Your task to perform on an android device: empty trash in the gmail app Image 0: 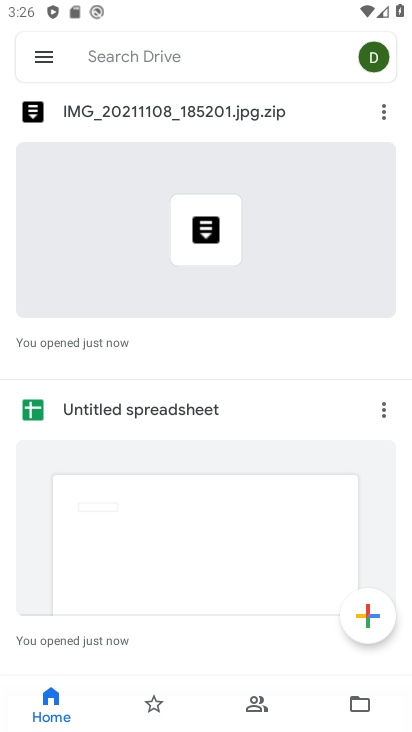
Step 0: press home button
Your task to perform on an android device: empty trash in the gmail app Image 1: 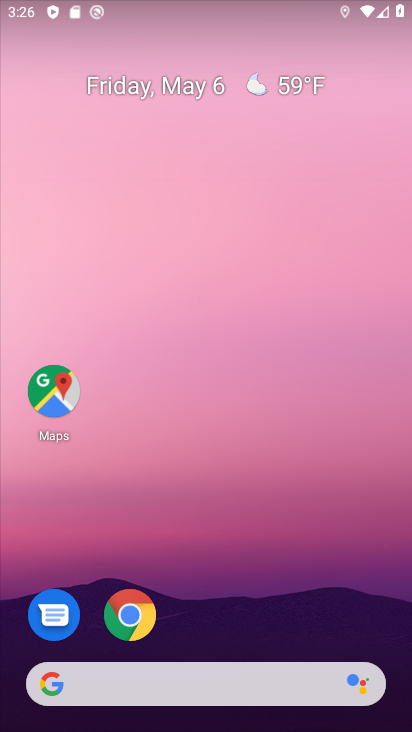
Step 1: drag from (334, 639) to (340, 20)
Your task to perform on an android device: empty trash in the gmail app Image 2: 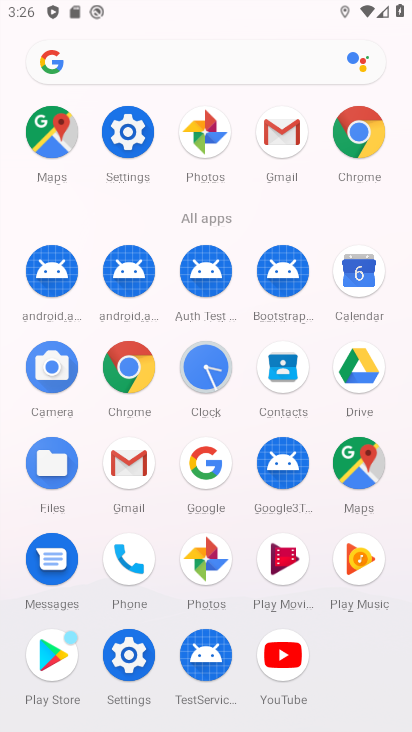
Step 2: click (282, 139)
Your task to perform on an android device: empty trash in the gmail app Image 3: 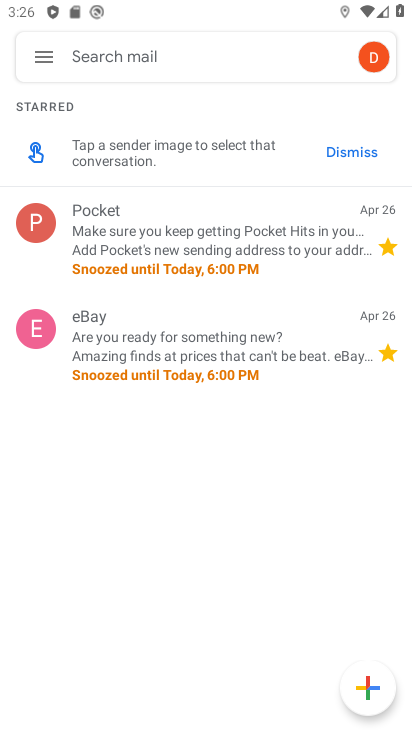
Step 3: click (49, 59)
Your task to perform on an android device: empty trash in the gmail app Image 4: 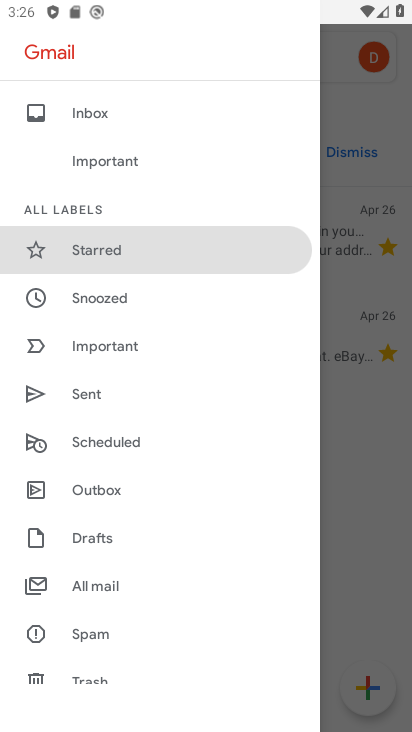
Step 4: drag from (150, 622) to (162, 392)
Your task to perform on an android device: empty trash in the gmail app Image 5: 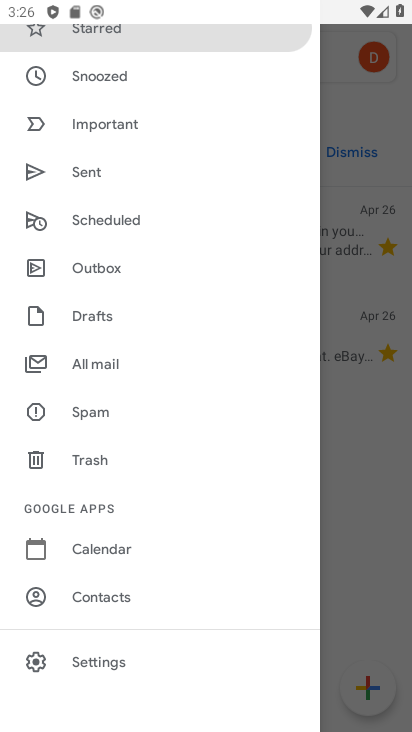
Step 5: click (90, 459)
Your task to perform on an android device: empty trash in the gmail app Image 6: 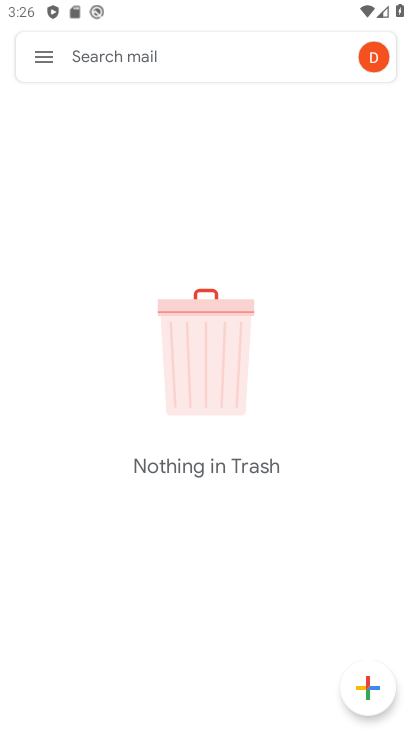
Step 6: task complete